Your task to perform on an android device: Open Chrome and go to the settings page Image 0: 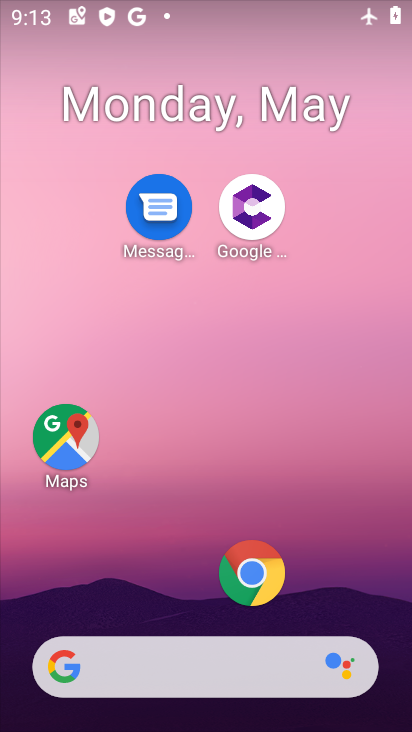
Step 0: click (258, 567)
Your task to perform on an android device: Open Chrome and go to the settings page Image 1: 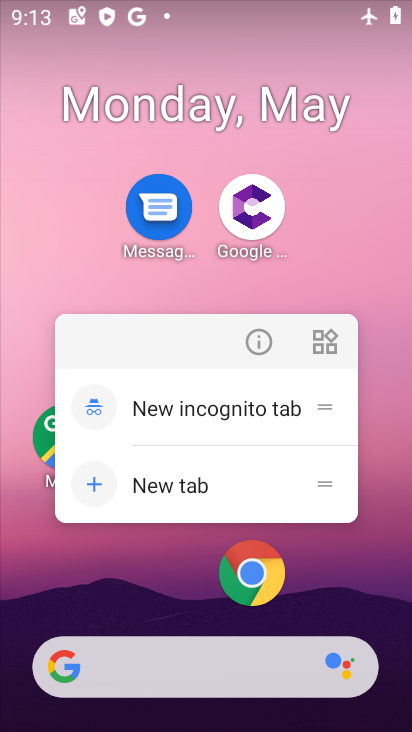
Step 1: click (269, 593)
Your task to perform on an android device: Open Chrome and go to the settings page Image 2: 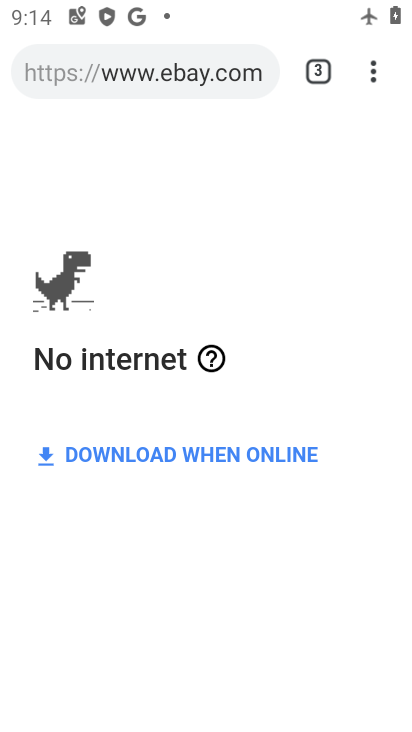
Step 2: click (376, 79)
Your task to perform on an android device: Open Chrome and go to the settings page Image 3: 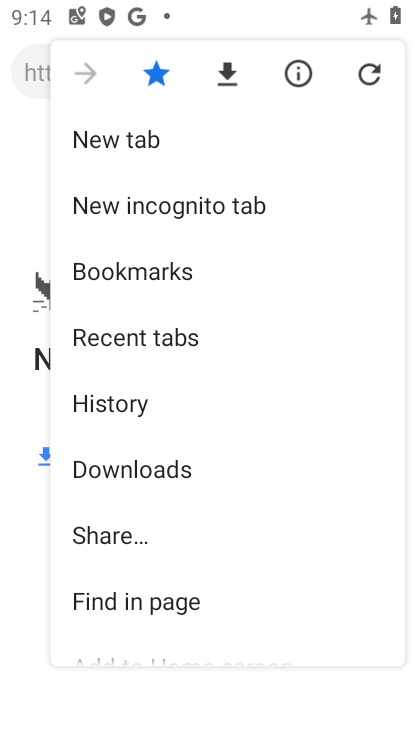
Step 3: drag from (255, 476) to (136, 153)
Your task to perform on an android device: Open Chrome and go to the settings page Image 4: 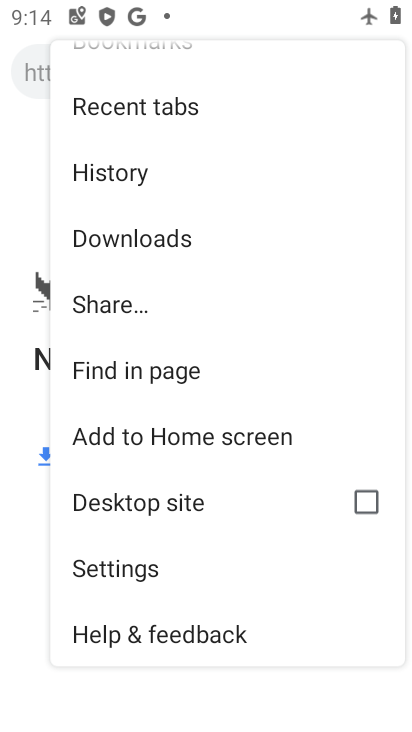
Step 4: click (205, 574)
Your task to perform on an android device: Open Chrome and go to the settings page Image 5: 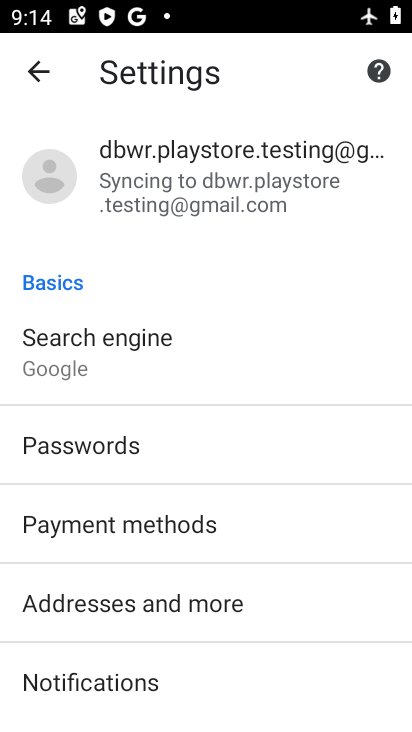
Step 5: task complete